Your task to perform on an android device: refresh tabs in the chrome app Image 0: 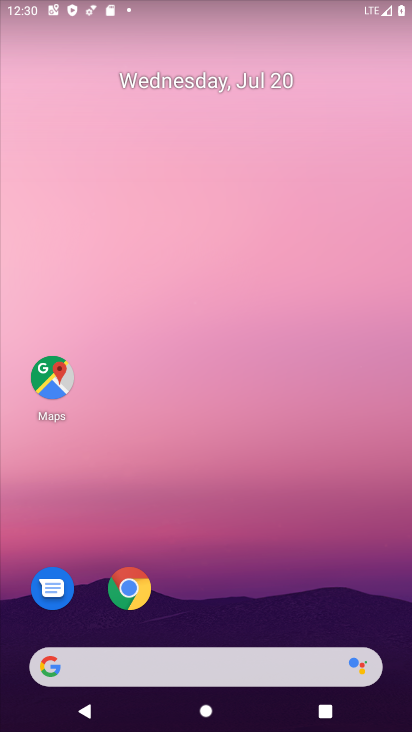
Step 0: click (120, 590)
Your task to perform on an android device: refresh tabs in the chrome app Image 1: 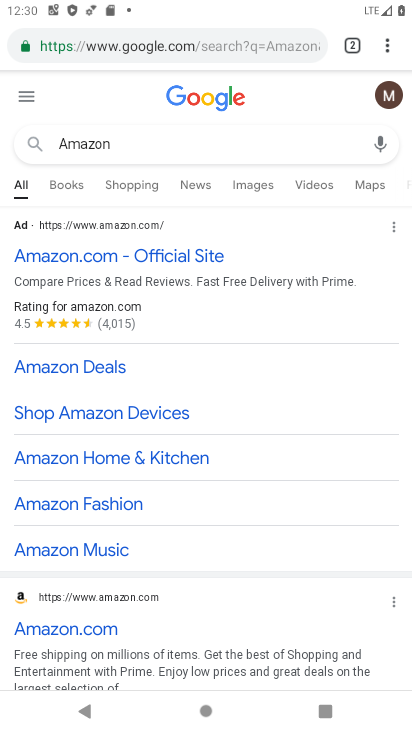
Step 1: click (389, 44)
Your task to perform on an android device: refresh tabs in the chrome app Image 2: 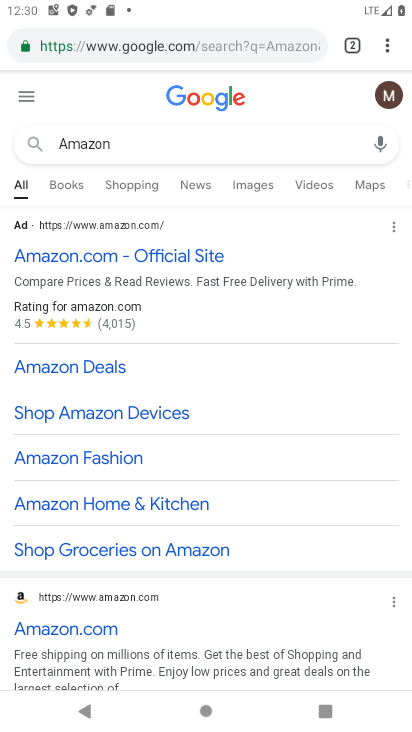
Step 2: click (382, 45)
Your task to perform on an android device: refresh tabs in the chrome app Image 3: 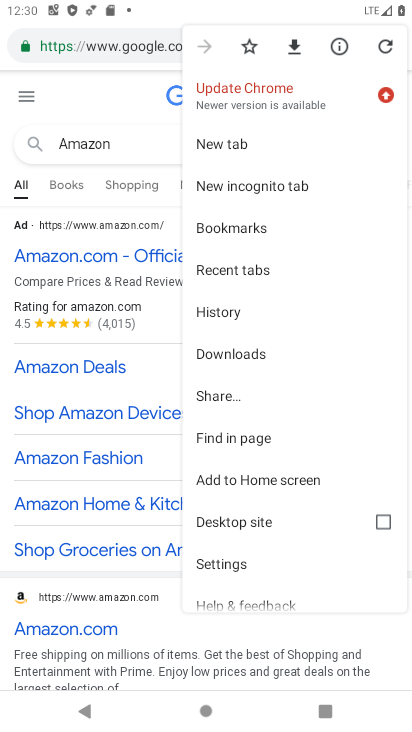
Step 3: click (382, 48)
Your task to perform on an android device: refresh tabs in the chrome app Image 4: 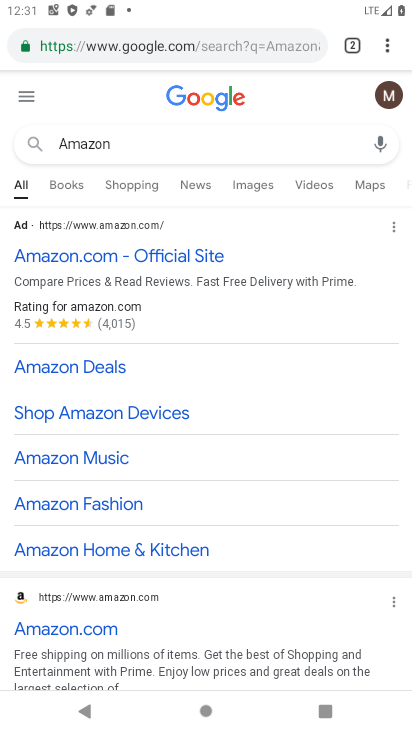
Step 4: task complete